Your task to perform on an android device: visit the assistant section in the google photos Image 0: 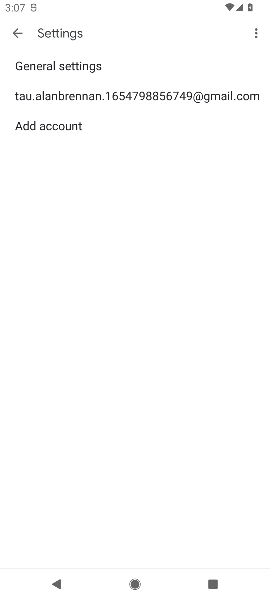
Step 0: press home button
Your task to perform on an android device: visit the assistant section in the google photos Image 1: 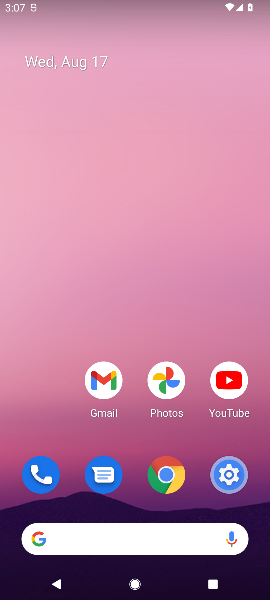
Step 1: click (156, 386)
Your task to perform on an android device: visit the assistant section in the google photos Image 2: 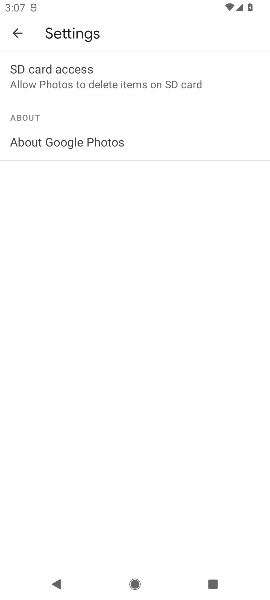
Step 2: click (7, 28)
Your task to perform on an android device: visit the assistant section in the google photos Image 3: 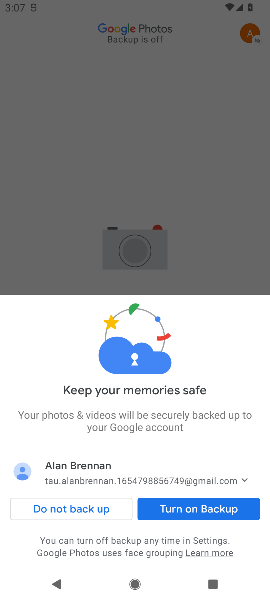
Step 3: click (159, 503)
Your task to perform on an android device: visit the assistant section in the google photos Image 4: 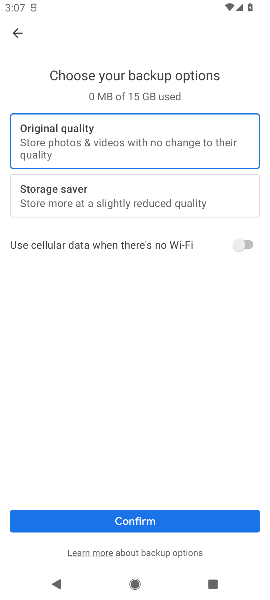
Step 4: click (76, 524)
Your task to perform on an android device: visit the assistant section in the google photos Image 5: 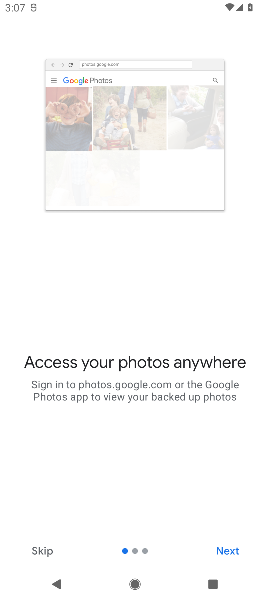
Step 5: click (46, 546)
Your task to perform on an android device: visit the assistant section in the google photos Image 6: 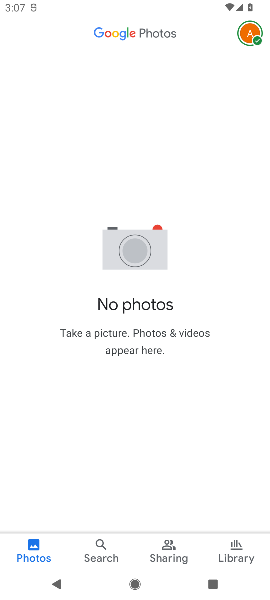
Step 6: click (95, 542)
Your task to perform on an android device: visit the assistant section in the google photos Image 7: 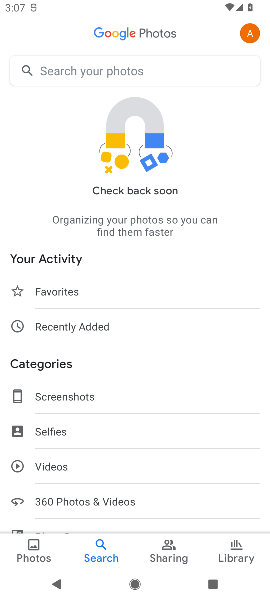
Step 7: click (164, 543)
Your task to perform on an android device: visit the assistant section in the google photos Image 8: 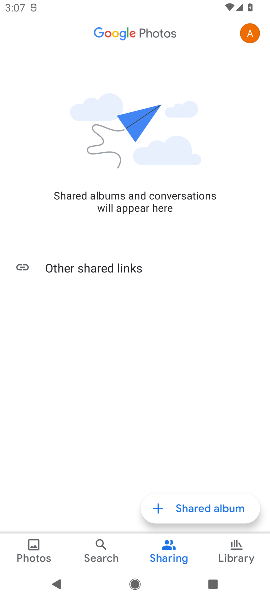
Step 8: task complete